Your task to perform on an android device: Go to eBay Image 0: 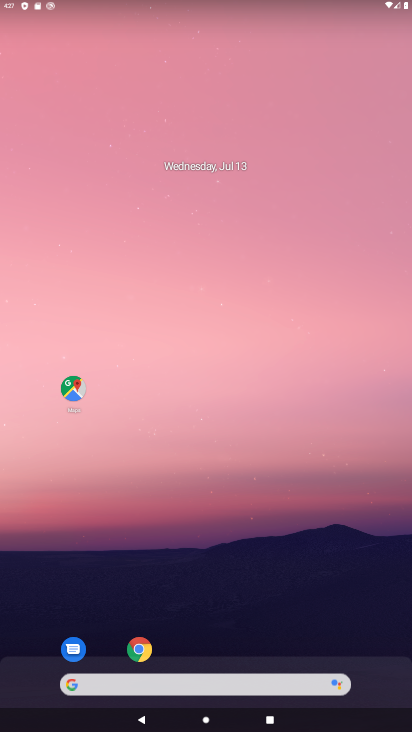
Step 0: click (152, 671)
Your task to perform on an android device: Go to eBay Image 1: 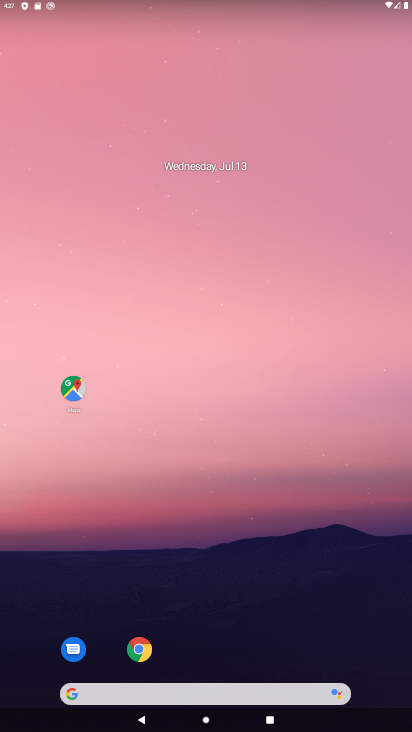
Step 1: click (141, 662)
Your task to perform on an android device: Go to eBay Image 2: 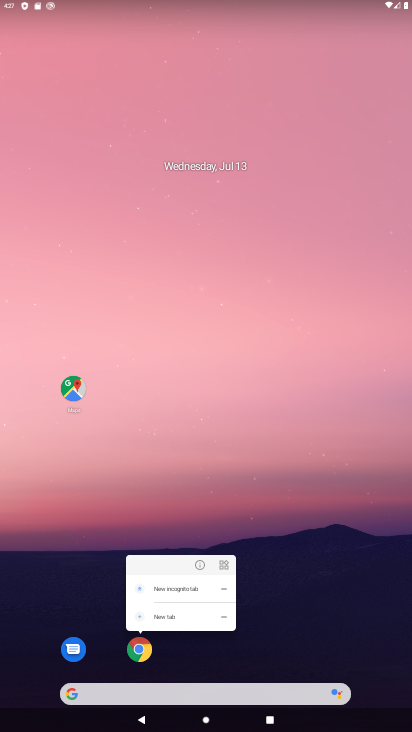
Step 2: click (141, 662)
Your task to perform on an android device: Go to eBay Image 3: 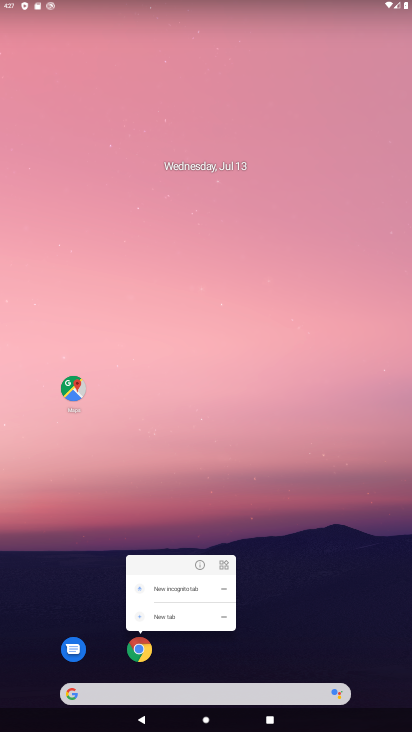
Step 3: click (133, 650)
Your task to perform on an android device: Go to eBay Image 4: 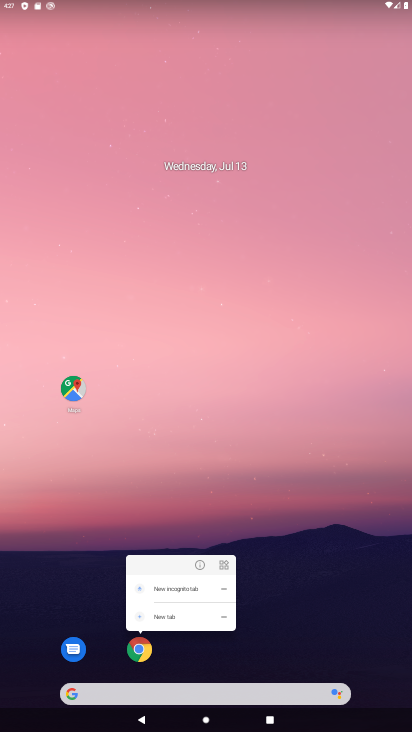
Step 4: click (133, 650)
Your task to perform on an android device: Go to eBay Image 5: 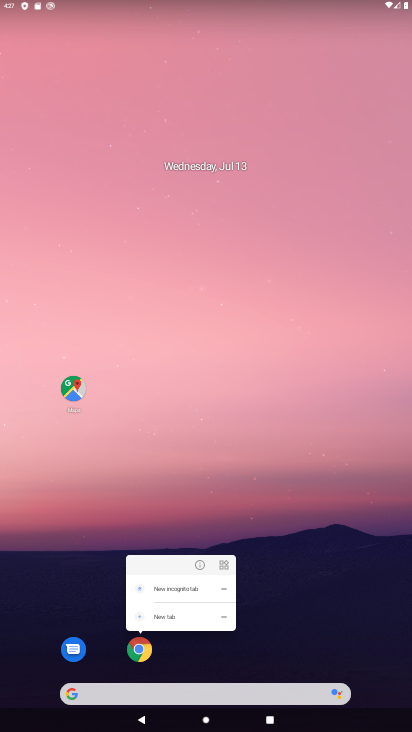
Step 5: click (137, 653)
Your task to perform on an android device: Go to eBay Image 6: 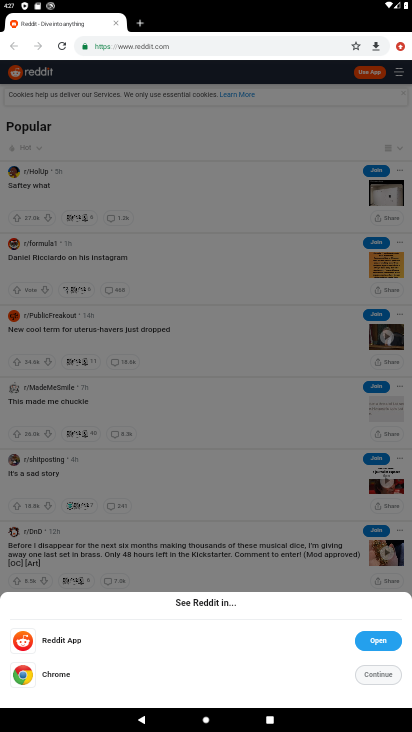
Step 6: click (394, 51)
Your task to perform on an android device: Go to eBay Image 7: 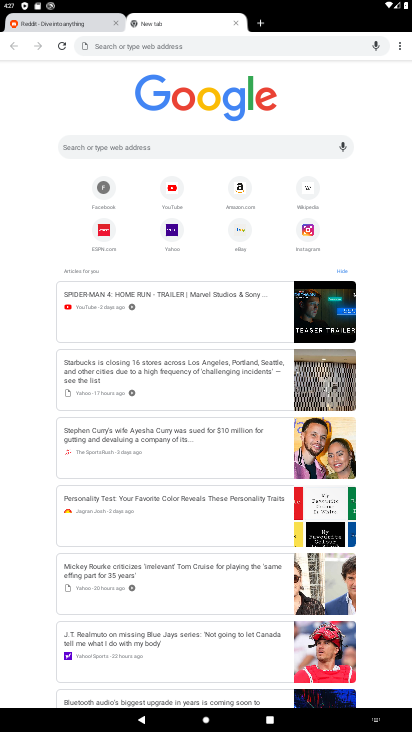
Step 7: click (242, 229)
Your task to perform on an android device: Go to eBay Image 8: 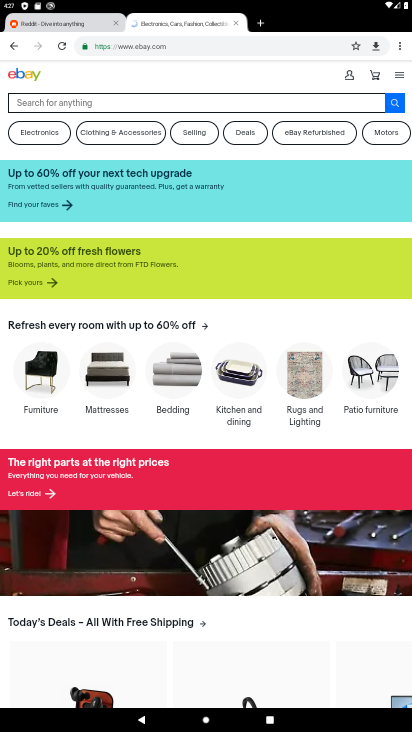
Step 8: task complete